Your task to perform on an android device: Toggle the flashlight Image 0: 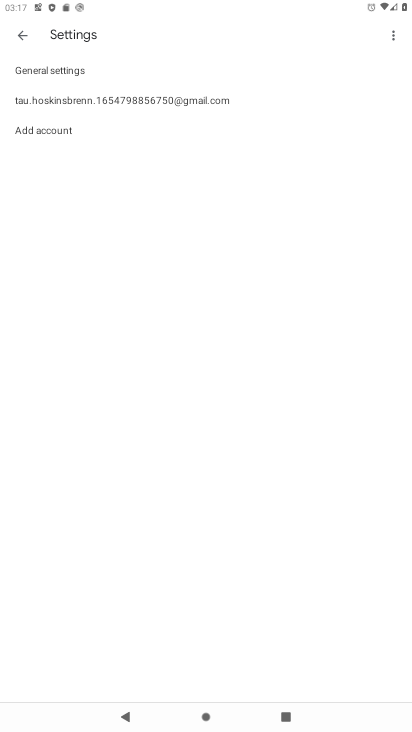
Step 0: press home button
Your task to perform on an android device: Toggle the flashlight Image 1: 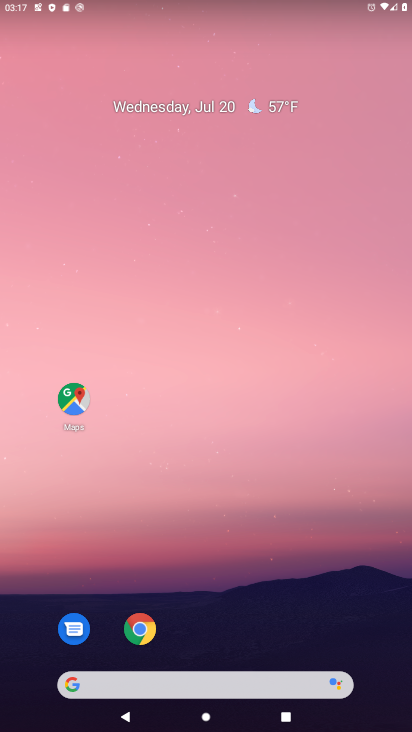
Step 1: drag from (221, 9) to (209, 476)
Your task to perform on an android device: Toggle the flashlight Image 2: 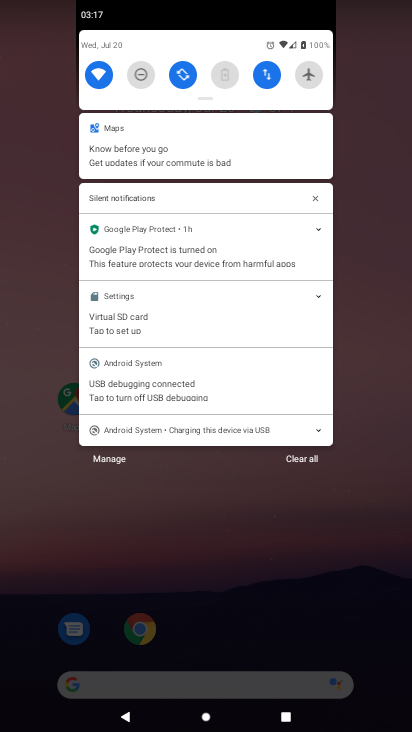
Step 2: drag from (206, 101) to (206, 394)
Your task to perform on an android device: Toggle the flashlight Image 3: 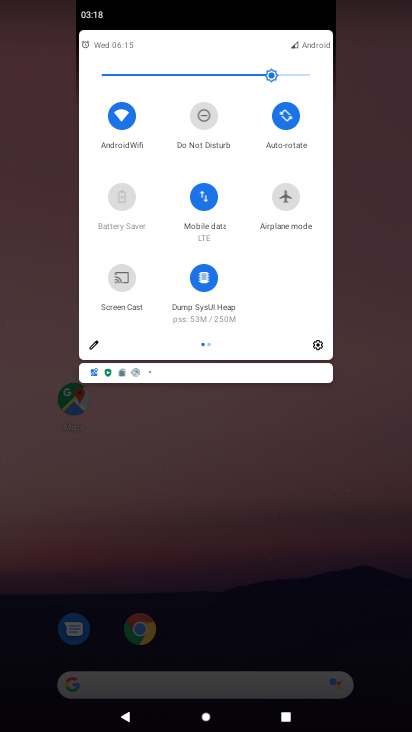
Step 3: click (94, 343)
Your task to perform on an android device: Toggle the flashlight Image 4: 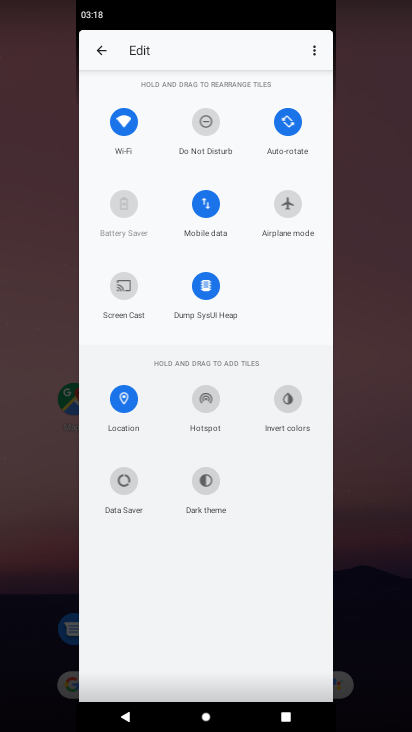
Step 4: task complete